Your task to perform on an android device: open app "YouTube Kids" Image 0: 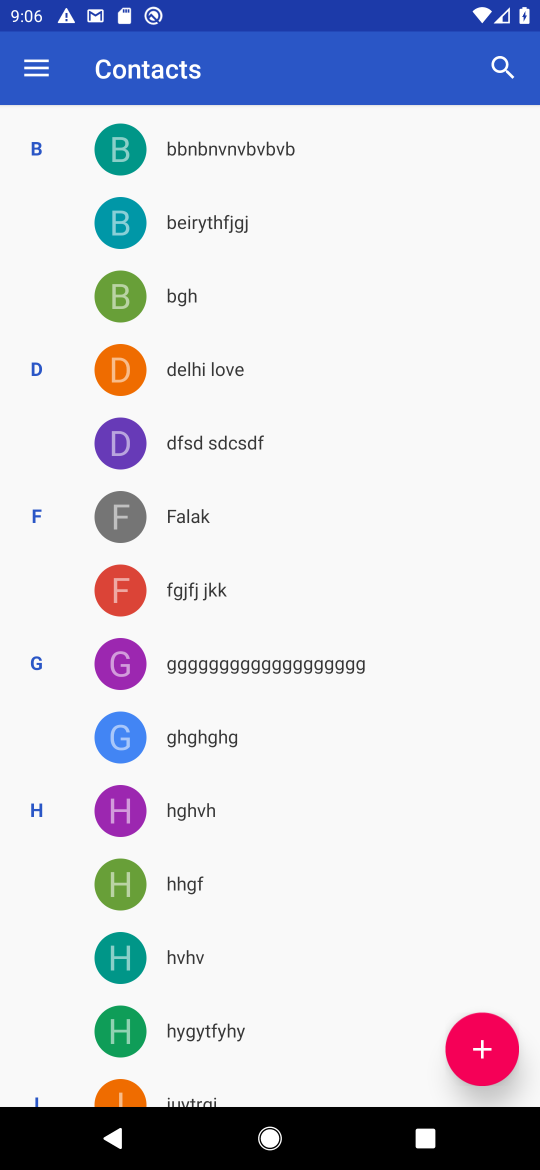
Step 0: press home button
Your task to perform on an android device: open app "YouTube Kids" Image 1: 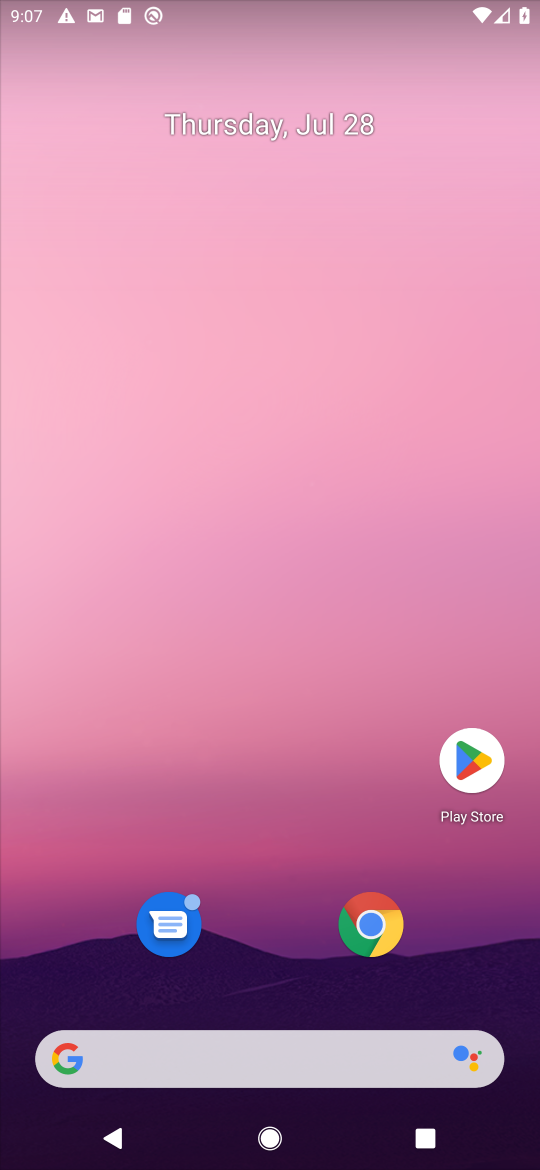
Step 1: click (465, 754)
Your task to perform on an android device: open app "YouTube Kids" Image 2: 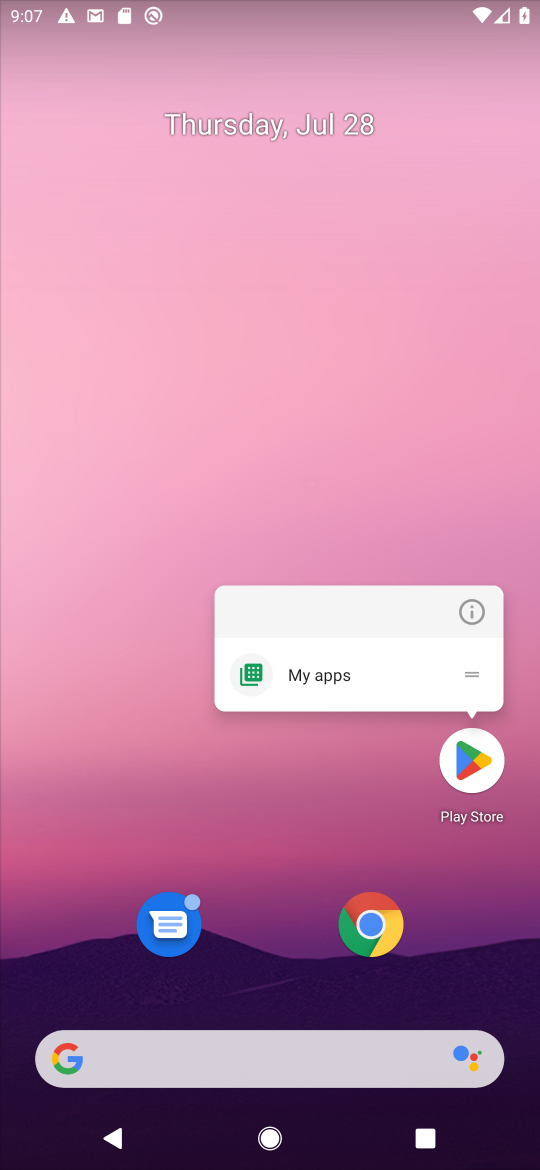
Step 2: click (465, 758)
Your task to perform on an android device: open app "YouTube Kids" Image 3: 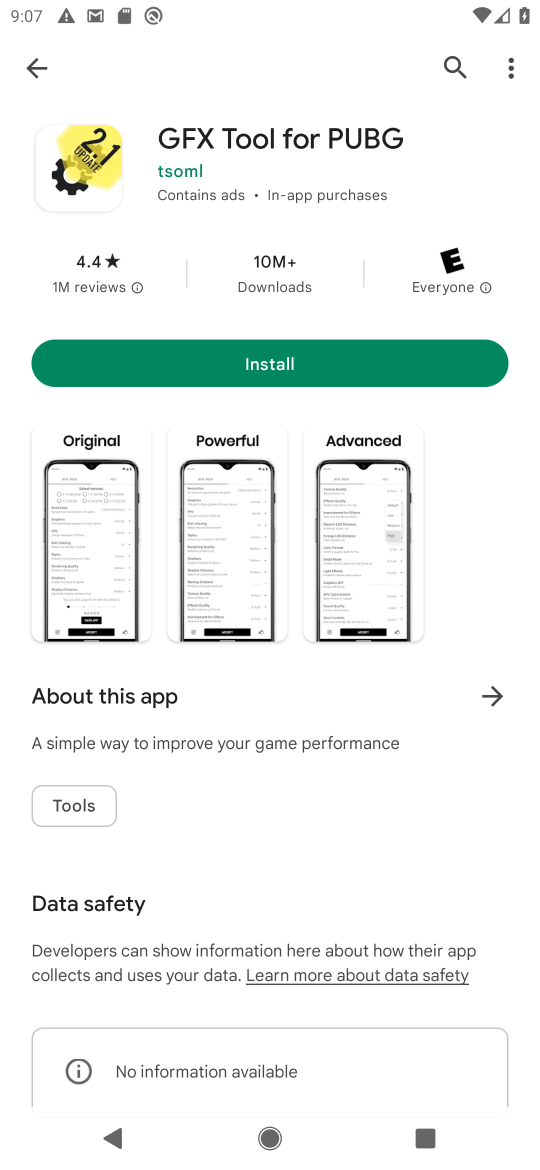
Step 3: click (458, 66)
Your task to perform on an android device: open app "YouTube Kids" Image 4: 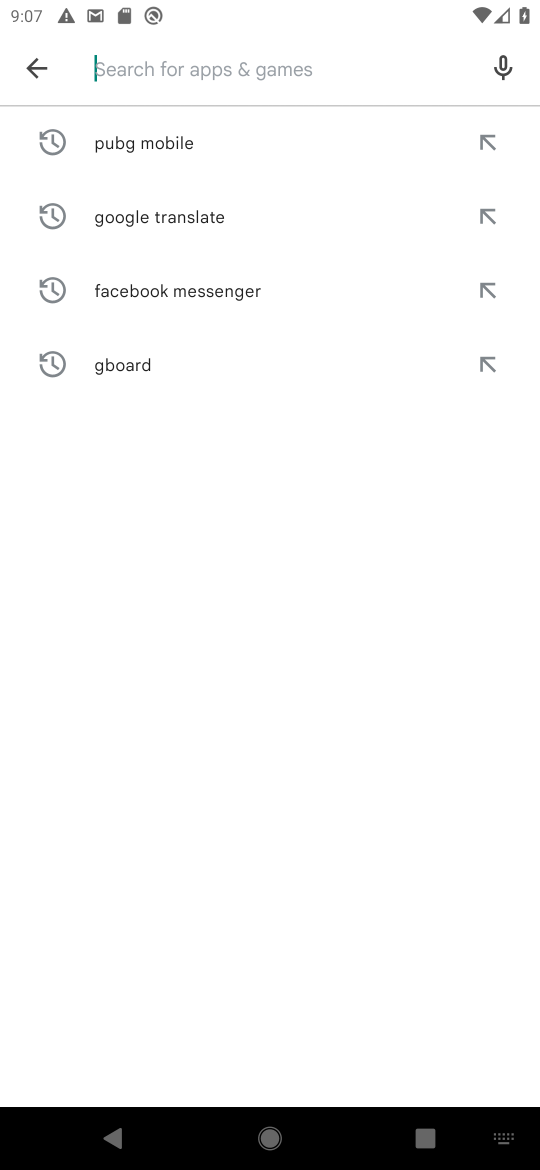
Step 4: type "YouTube Kids"
Your task to perform on an android device: open app "YouTube Kids" Image 5: 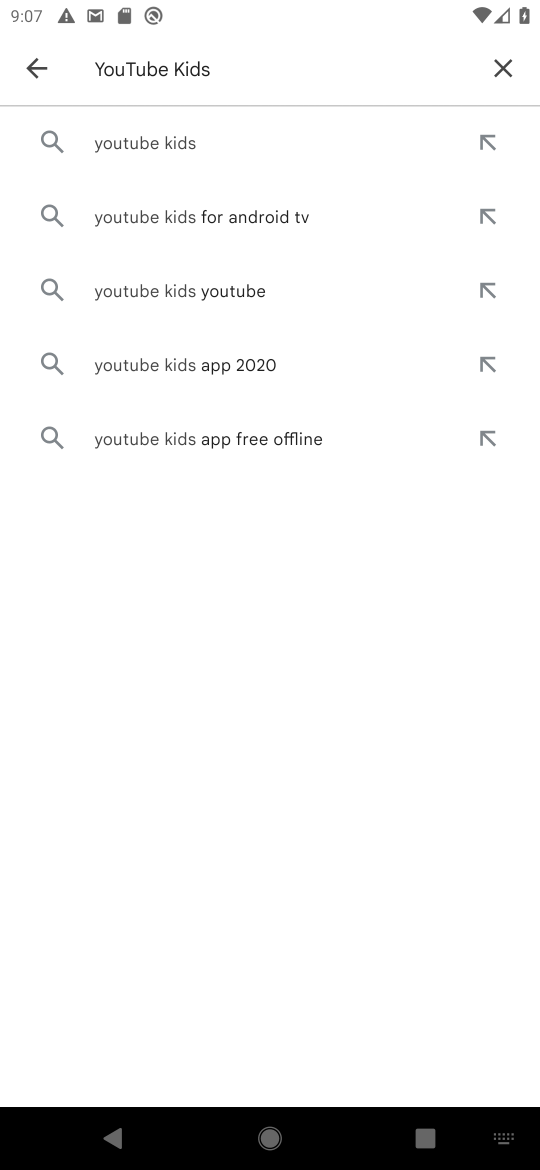
Step 5: click (161, 135)
Your task to perform on an android device: open app "YouTube Kids" Image 6: 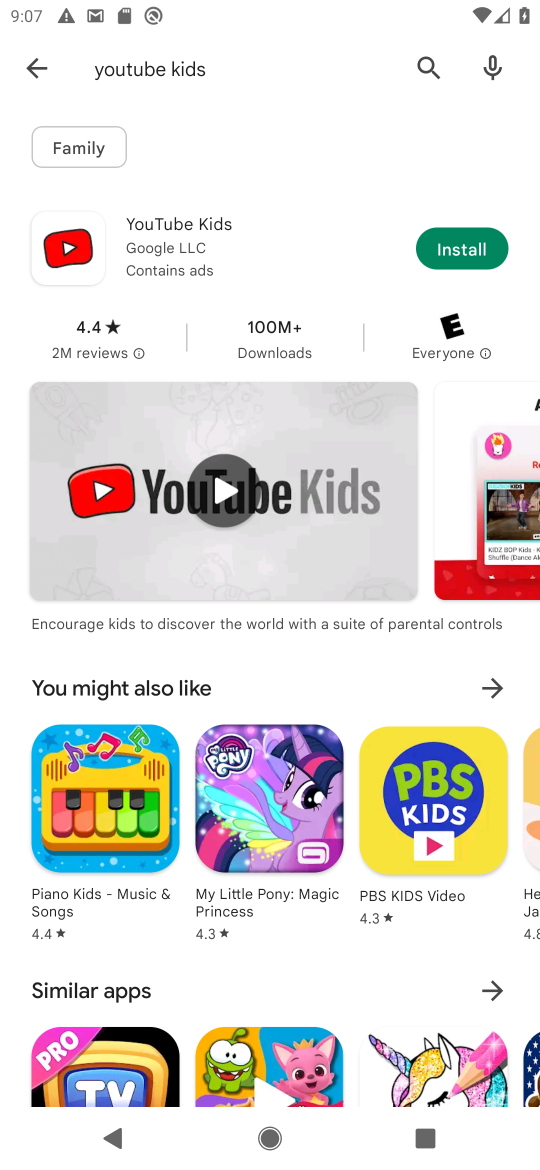
Step 6: task complete